Your task to perform on an android device: turn off javascript in the chrome app Image 0: 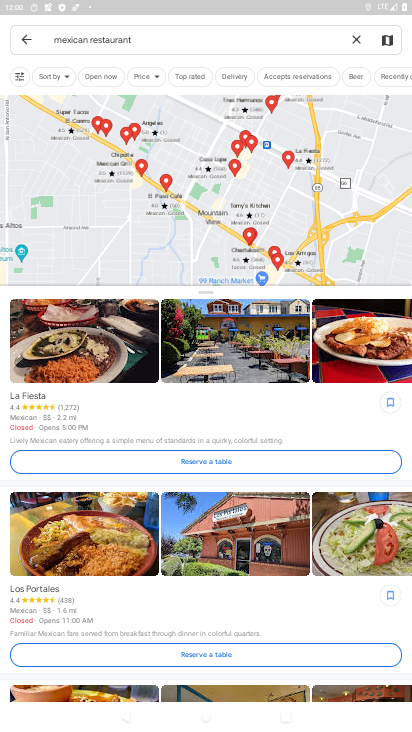
Step 0: press home button
Your task to perform on an android device: turn off javascript in the chrome app Image 1: 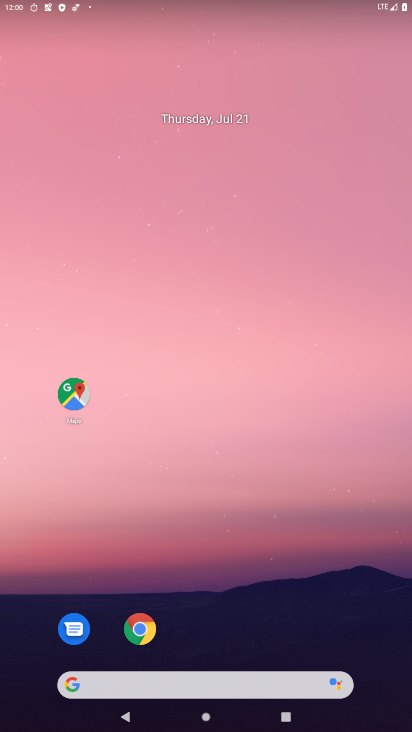
Step 1: drag from (251, 687) to (327, 14)
Your task to perform on an android device: turn off javascript in the chrome app Image 2: 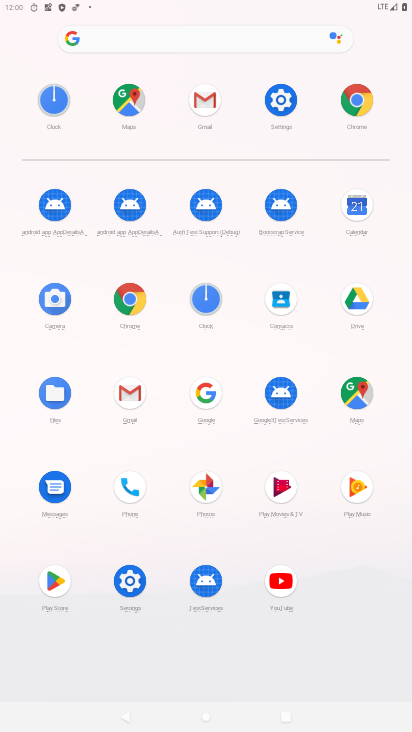
Step 2: click (127, 298)
Your task to perform on an android device: turn off javascript in the chrome app Image 3: 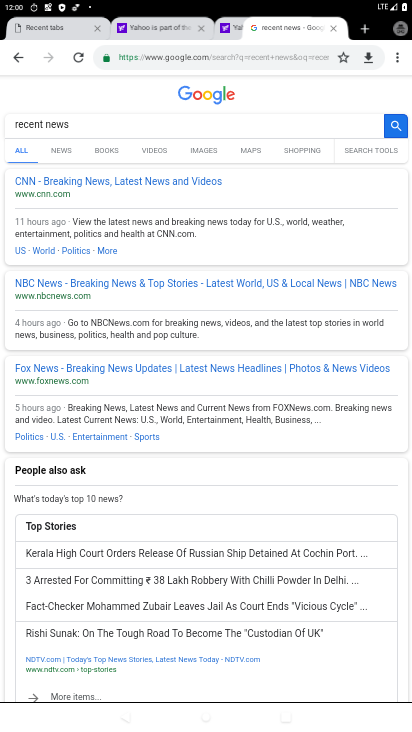
Step 3: drag from (399, 57) to (287, 353)
Your task to perform on an android device: turn off javascript in the chrome app Image 4: 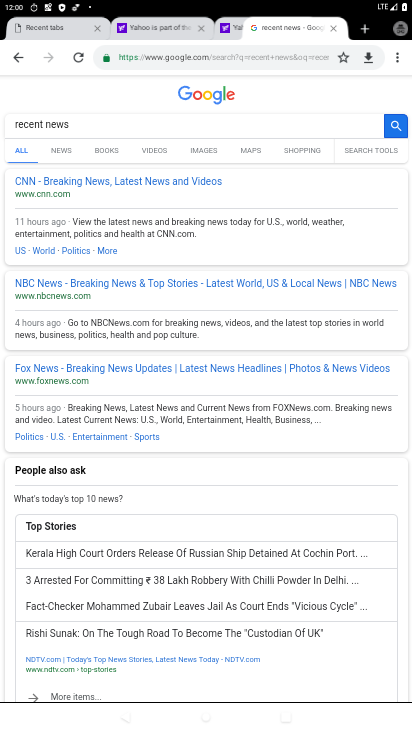
Step 4: click (278, 351)
Your task to perform on an android device: turn off javascript in the chrome app Image 5: 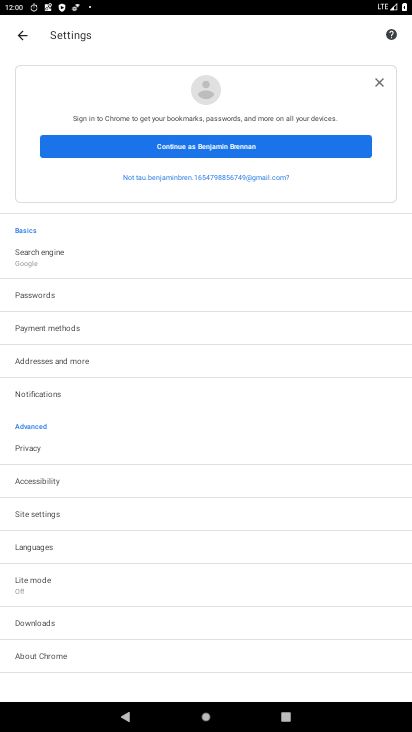
Step 5: click (68, 512)
Your task to perform on an android device: turn off javascript in the chrome app Image 6: 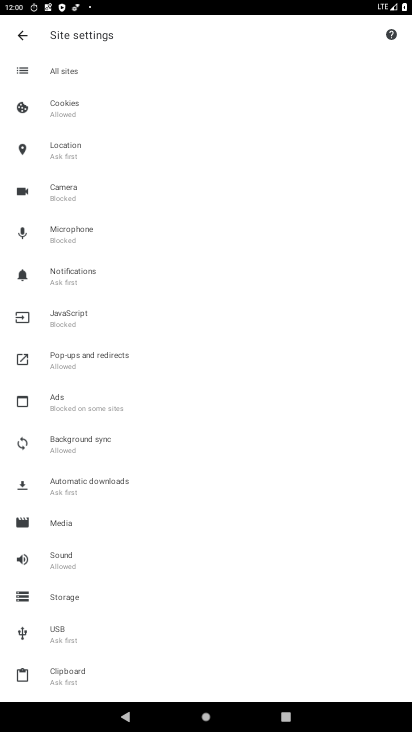
Step 6: click (95, 324)
Your task to perform on an android device: turn off javascript in the chrome app Image 7: 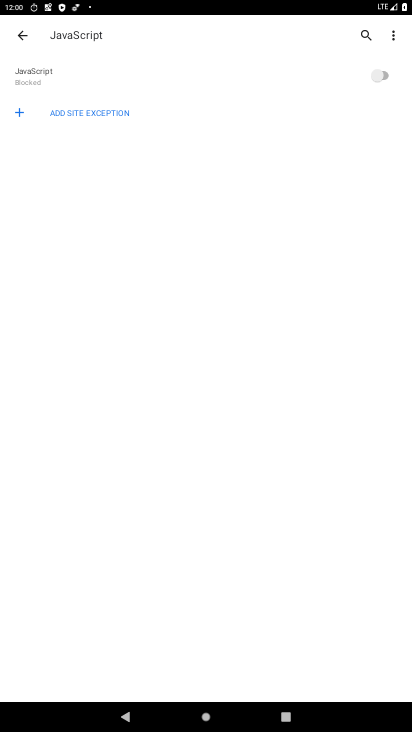
Step 7: task complete